Your task to perform on an android device: turn pop-ups on in chrome Image 0: 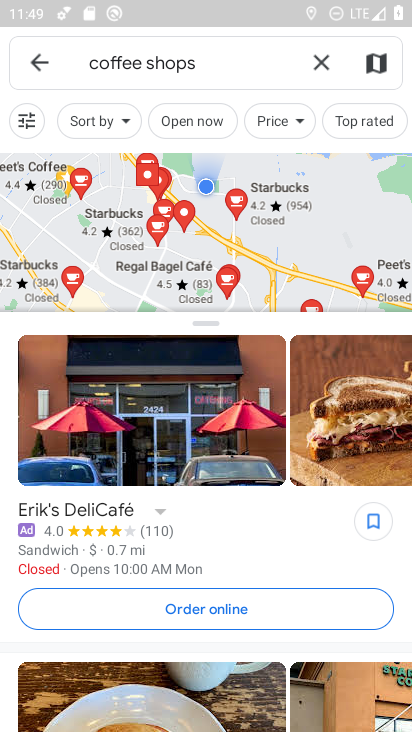
Step 0: press home button
Your task to perform on an android device: turn pop-ups on in chrome Image 1: 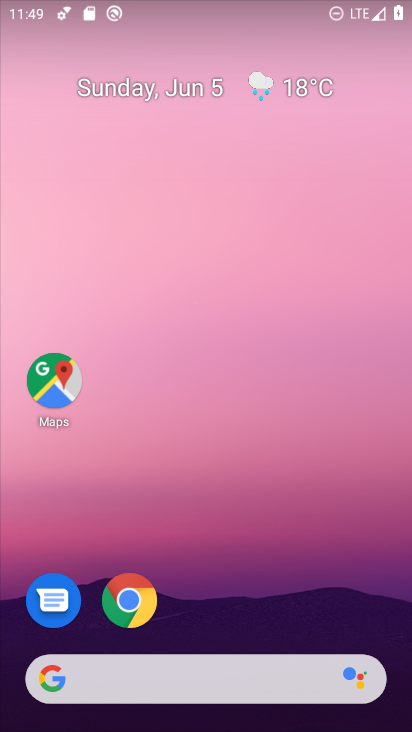
Step 1: click (140, 607)
Your task to perform on an android device: turn pop-ups on in chrome Image 2: 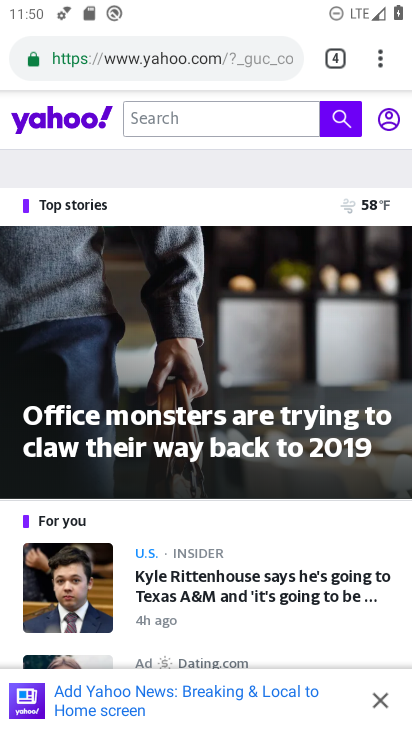
Step 2: drag from (378, 53) to (178, 618)
Your task to perform on an android device: turn pop-ups on in chrome Image 3: 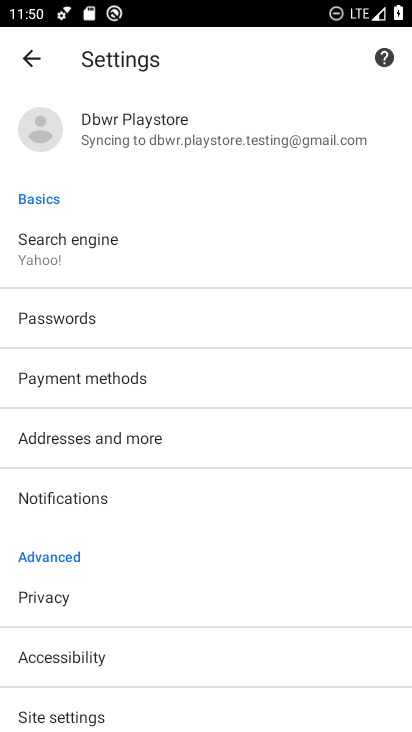
Step 3: drag from (134, 644) to (154, 464)
Your task to perform on an android device: turn pop-ups on in chrome Image 4: 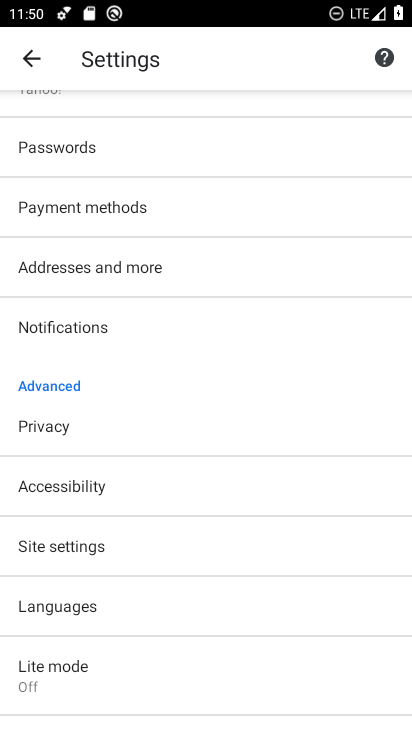
Step 4: click (110, 542)
Your task to perform on an android device: turn pop-ups on in chrome Image 5: 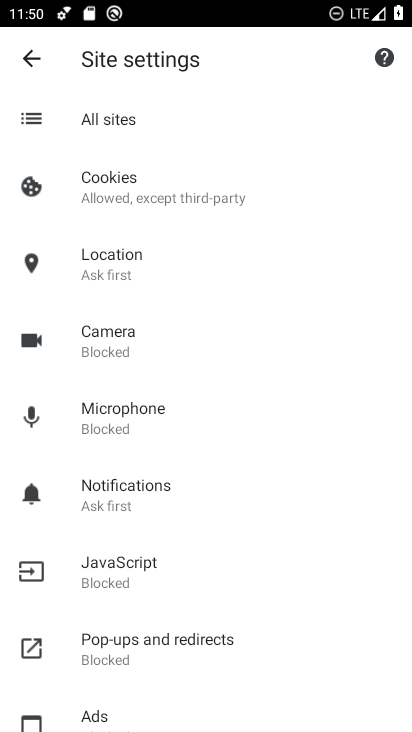
Step 5: click (202, 650)
Your task to perform on an android device: turn pop-ups on in chrome Image 6: 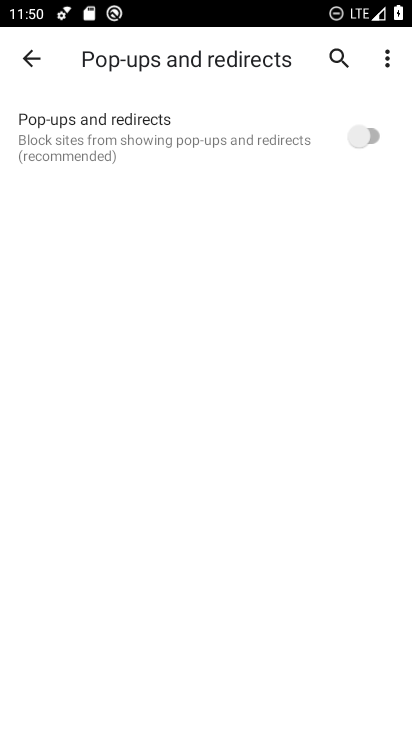
Step 6: click (360, 128)
Your task to perform on an android device: turn pop-ups on in chrome Image 7: 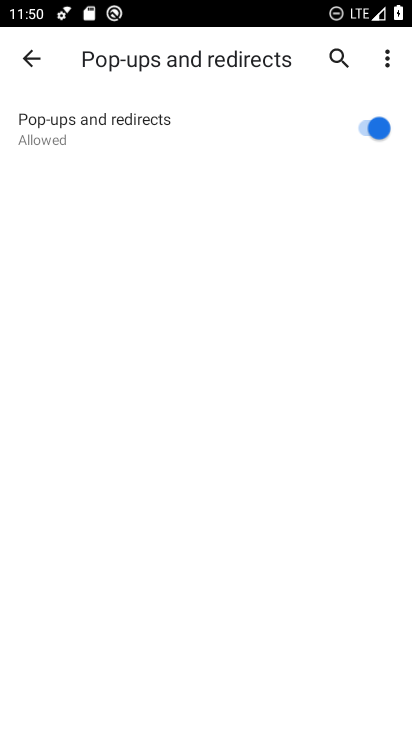
Step 7: task complete